Your task to perform on an android device: open a bookmark in the chrome app Image 0: 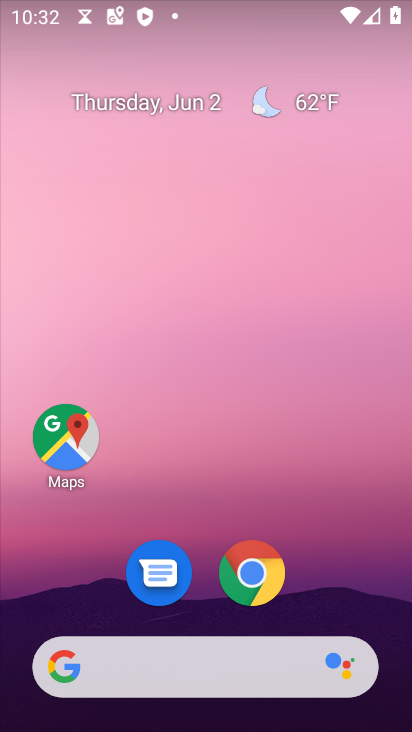
Step 0: click (253, 571)
Your task to perform on an android device: open a bookmark in the chrome app Image 1: 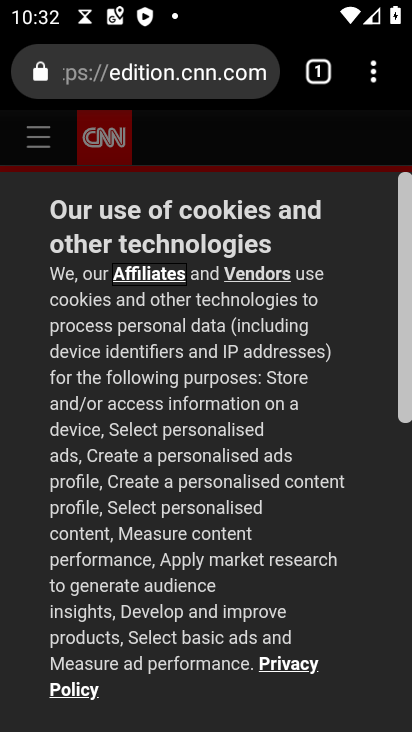
Step 1: click (376, 71)
Your task to perform on an android device: open a bookmark in the chrome app Image 2: 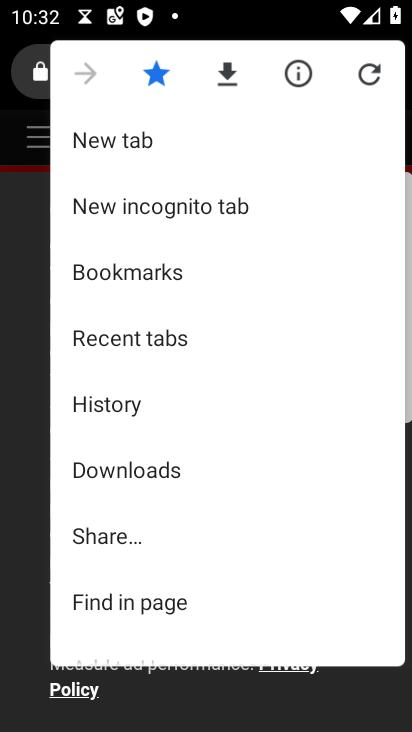
Step 2: click (135, 276)
Your task to perform on an android device: open a bookmark in the chrome app Image 3: 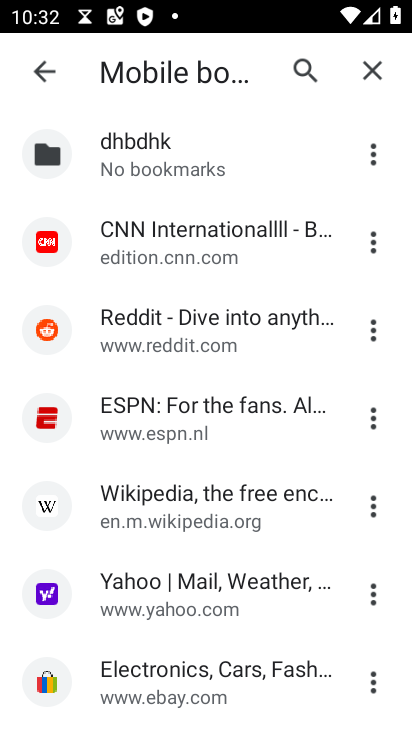
Step 3: task complete